Your task to perform on an android device: clear all cookies in the chrome app Image 0: 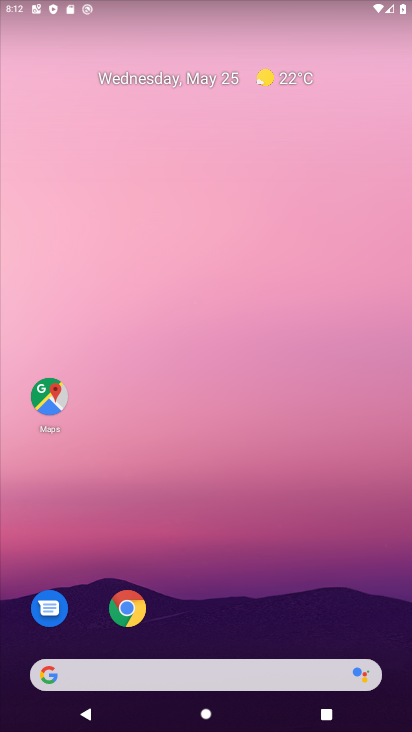
Step 0: click (128, 608)
Your task to perform on an android device: clear all cookies in the chrome app Image 1: 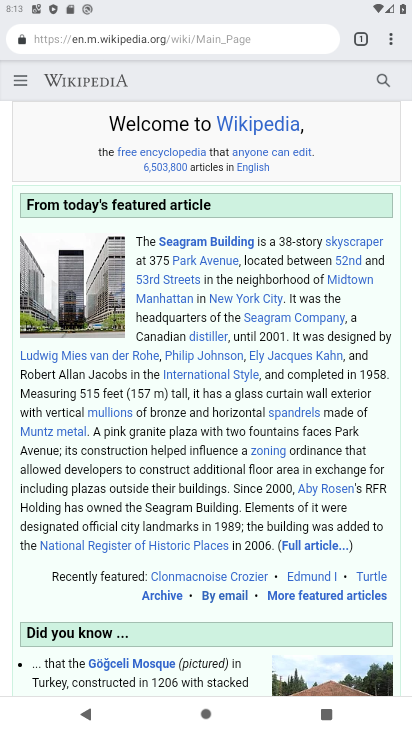
Step 1: click (393, 39)
Your task to perform on an android device: clear all cookies in the chrome app Image 2: 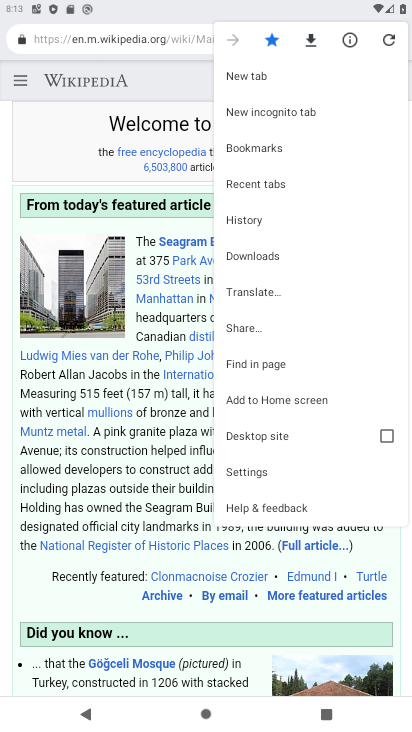
Step 2: click (249, 473)
Your task to perform on an android device: clear all cookies in the chrome app Image 3: 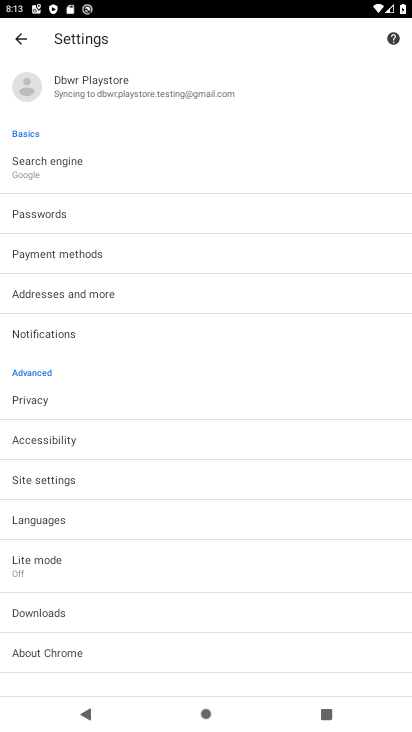
Step 3: click (30, 400)
Your task to perform on an android device: clear all cookies in the chrome app Image 4: 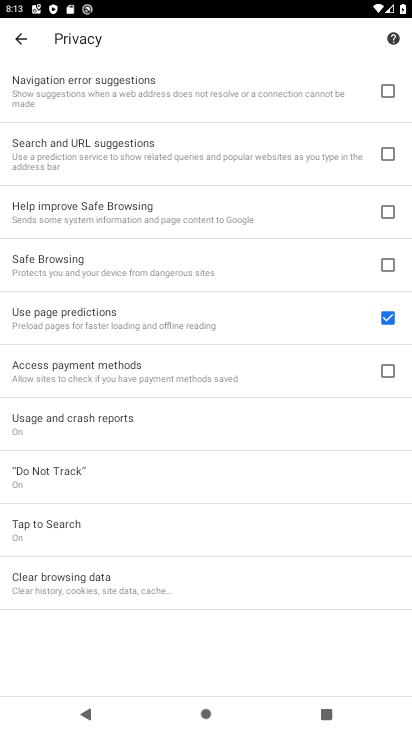
Step 4: click (86, 576)
Your task to perform on an android device: clear all cookies in the chrome app Image 5: 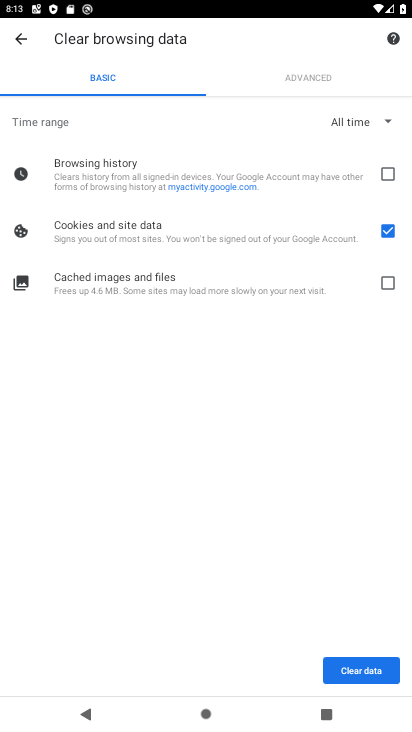
Step 5: click (359, 679)
Your task to perform on an android device: clear all cookies in the chrome app Image 6: 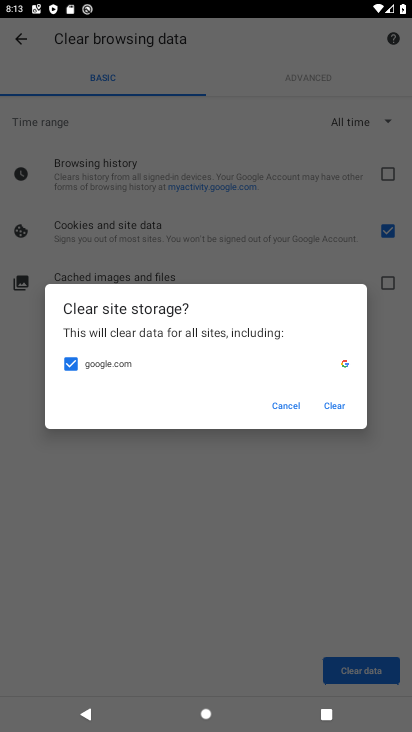
Step 6: click (340, 409)
Your task to perform on an android device: clear all cookies in the chrome app Image 7: 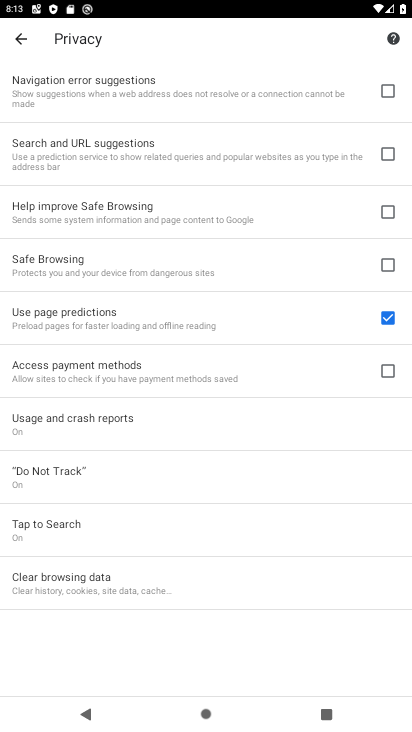
Step 7: task complete